Your task to perform on an android device: change alarm snooze length Image 0: 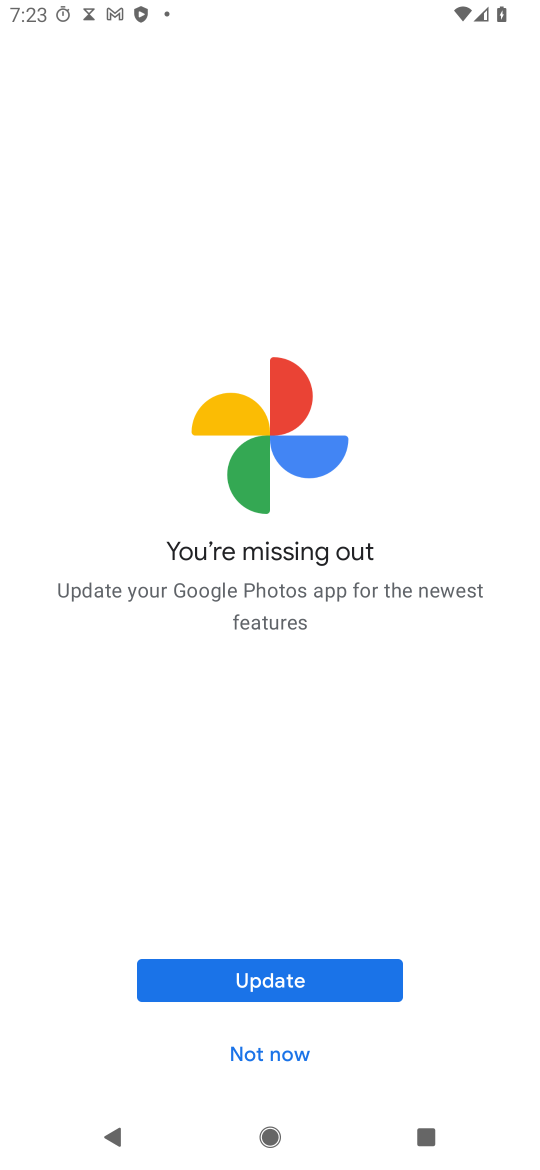
Step 0: press home button
Your task to perform on an android device: change alarm snooze length Image 1: 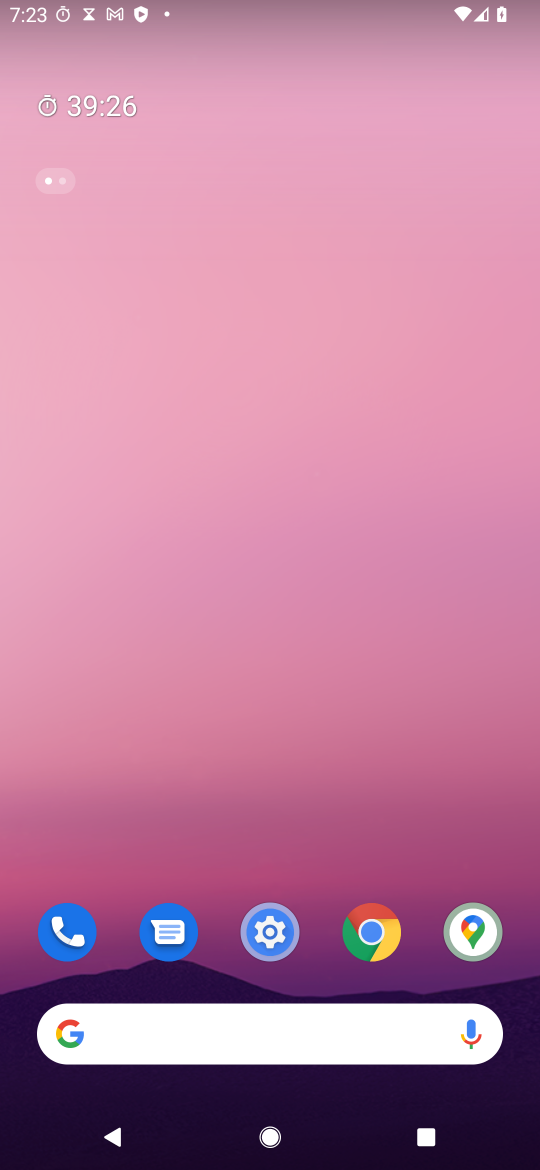
Step 1: drag from (288, 833) to (325, 93)
Your task to perform on an android device: change alarm snooze length Image 2: 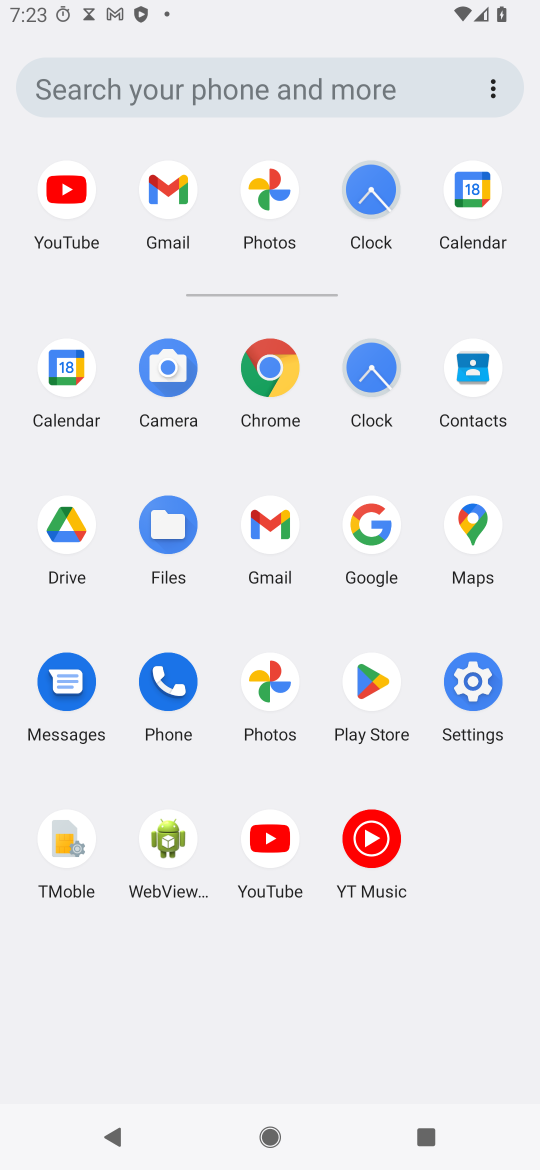
Step 2: click (359, 360)
Your task to perform on an android device: change alarm snooze length Image 3: 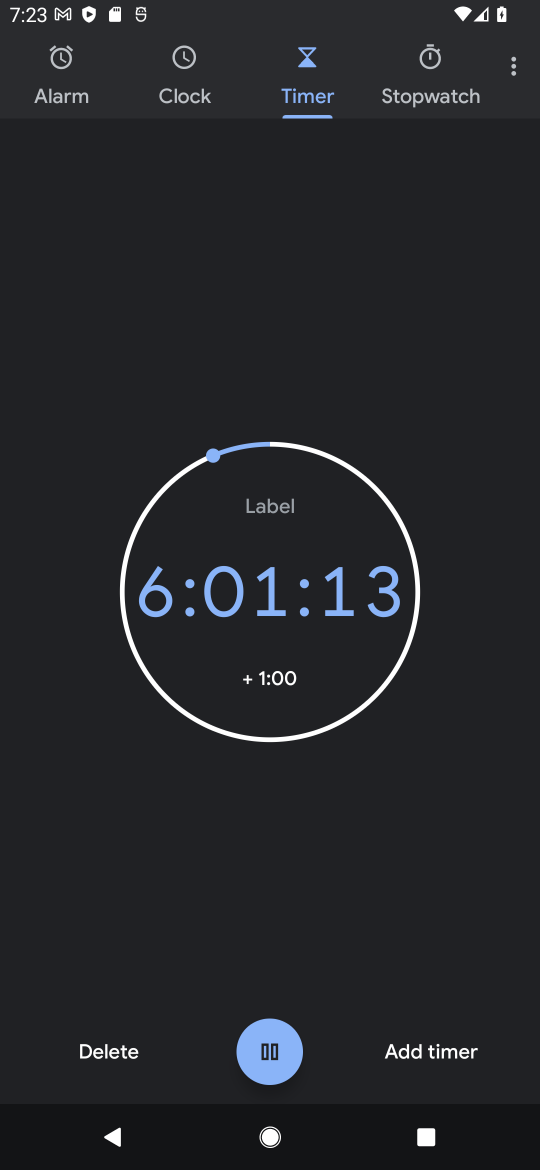
Step 3: click (512, 68)
Your task to perform on an android device: change alarm snooze length Image 4: 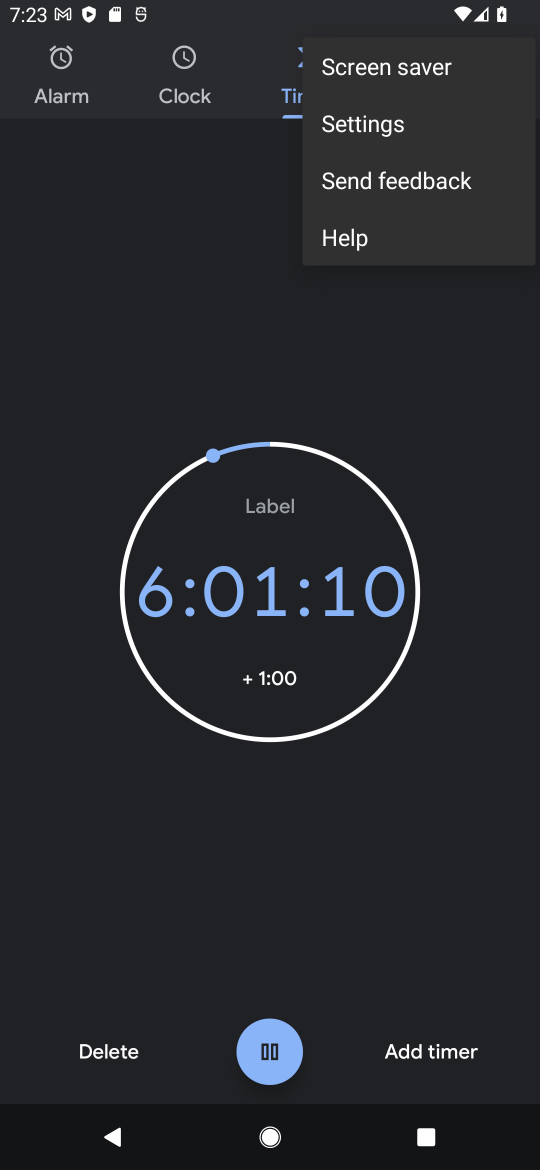
Step 4: click (390, 122)
Your task to perform on an android device: change alarm snooze length Image 5: 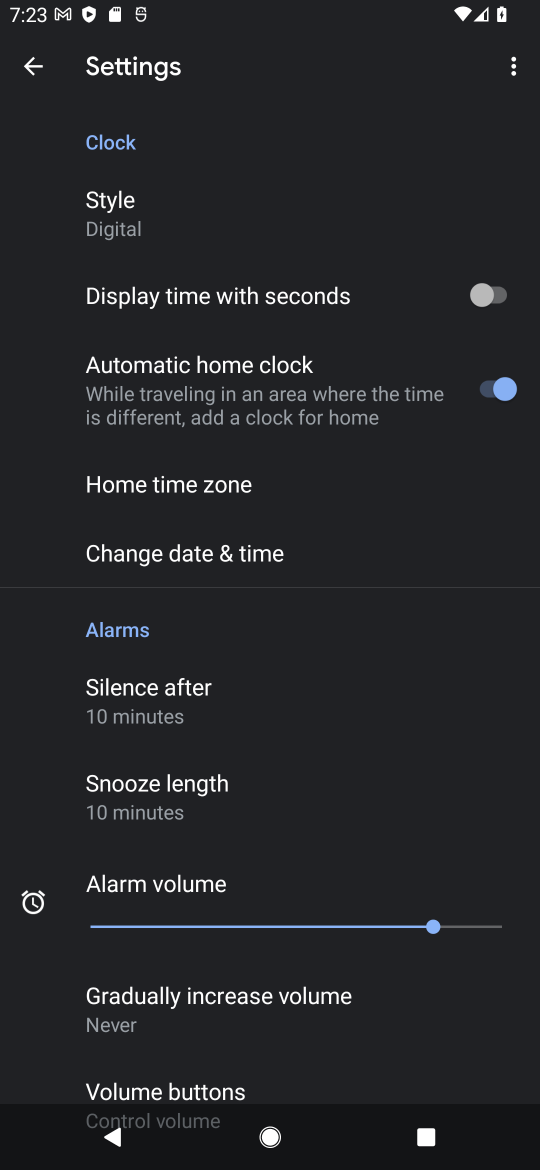
Step 5: drag from (254, 783) to (244, 462)
Your task to perform on an android device: change alarm snooze length Image 6: 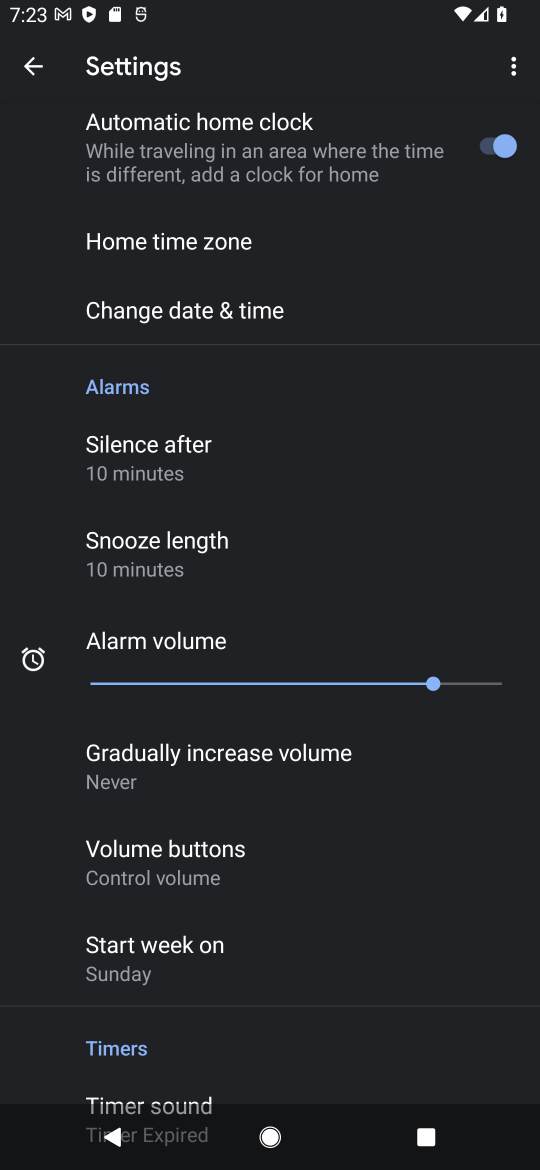
Step 6: click (192, 556)
Your task to perform on an android device: change alarm snooze length Image 7: 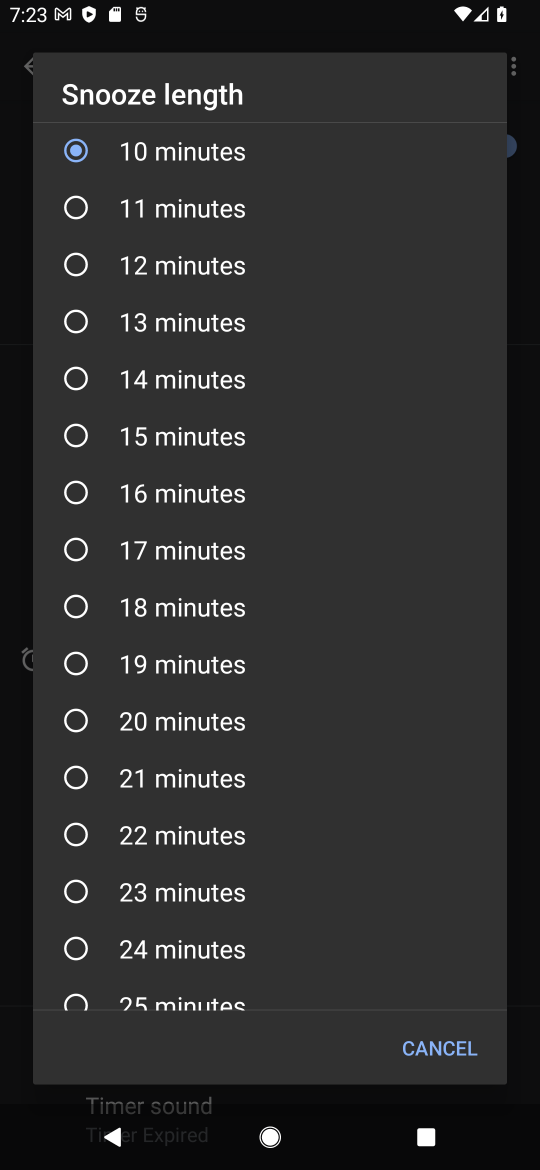
Step 7: click (214, 271)
Your task to perform on an android device: change alarm snooze length Image 8: 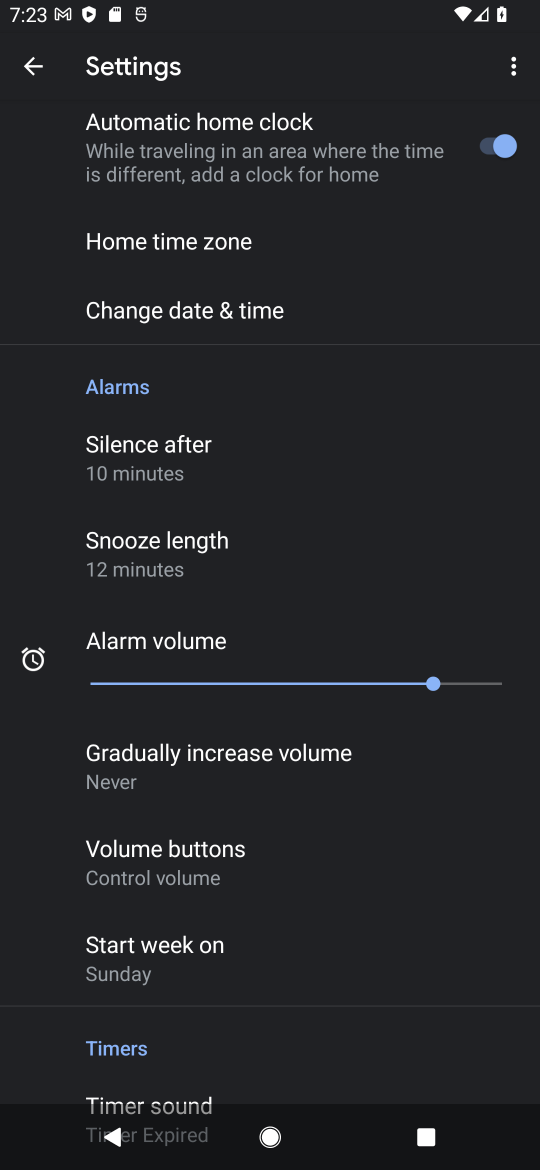
Step 8: task complete